Your task to perform on an android device: What's on the menu at Denny's? Image 0: 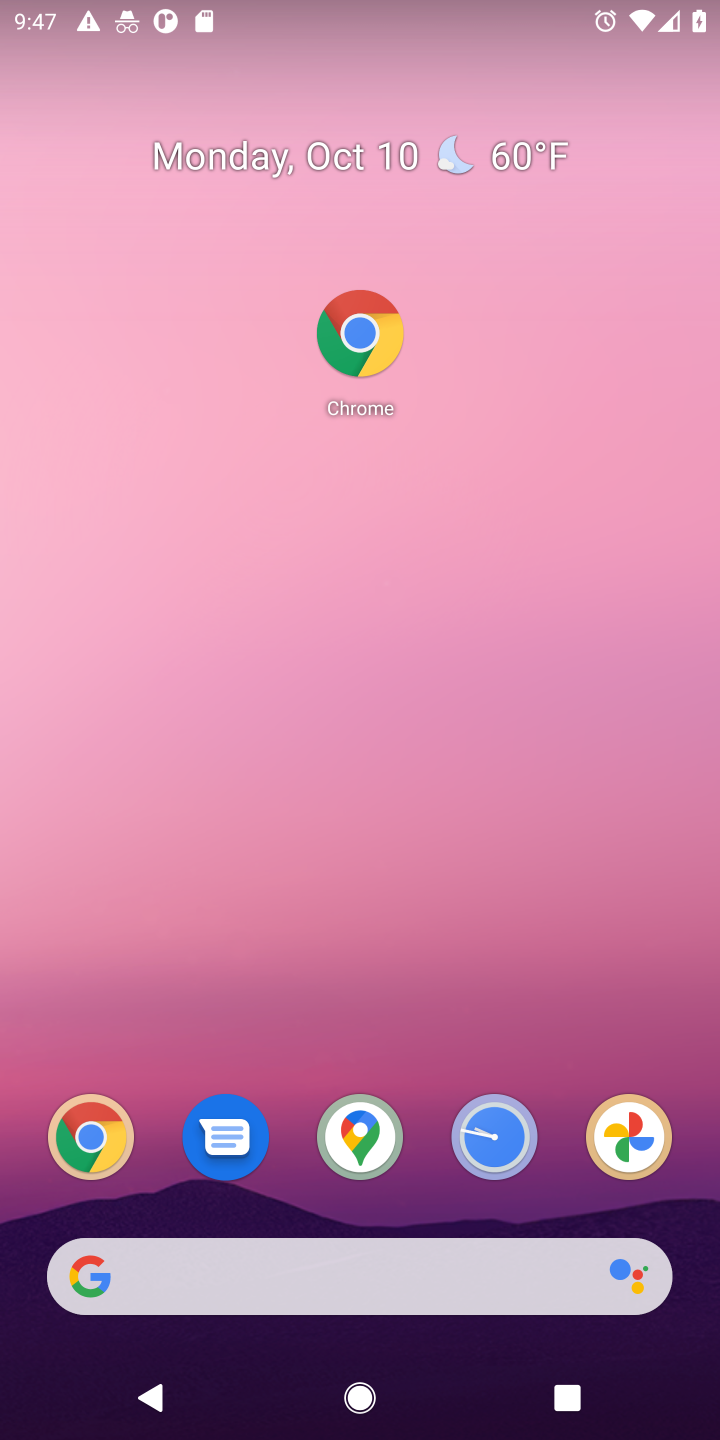
Step 0: click (352, 312)
Your task to perform on an android device: What's on the menu at Denny's? Image 1: 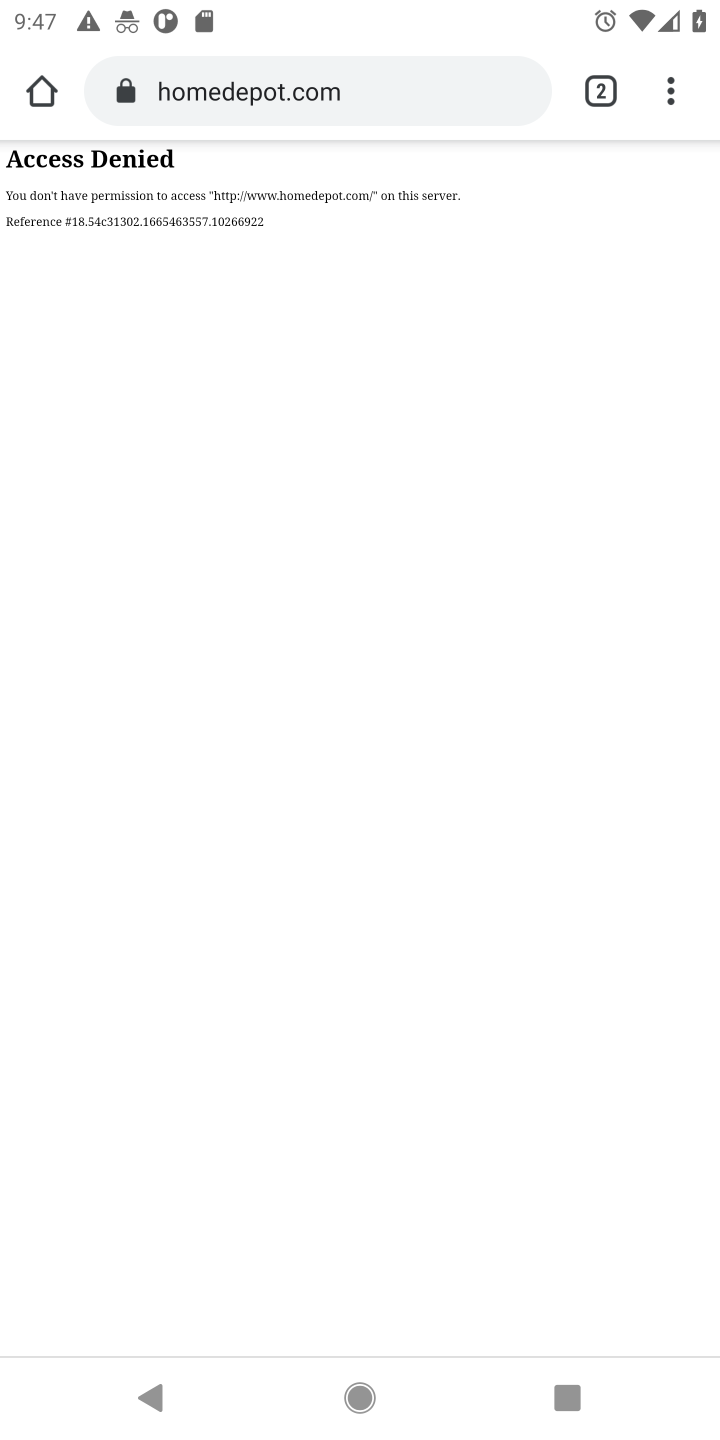
Step 1: click (349, 66)
Your task to perform on an android device: What's on the menu at Denny's? Image 2: 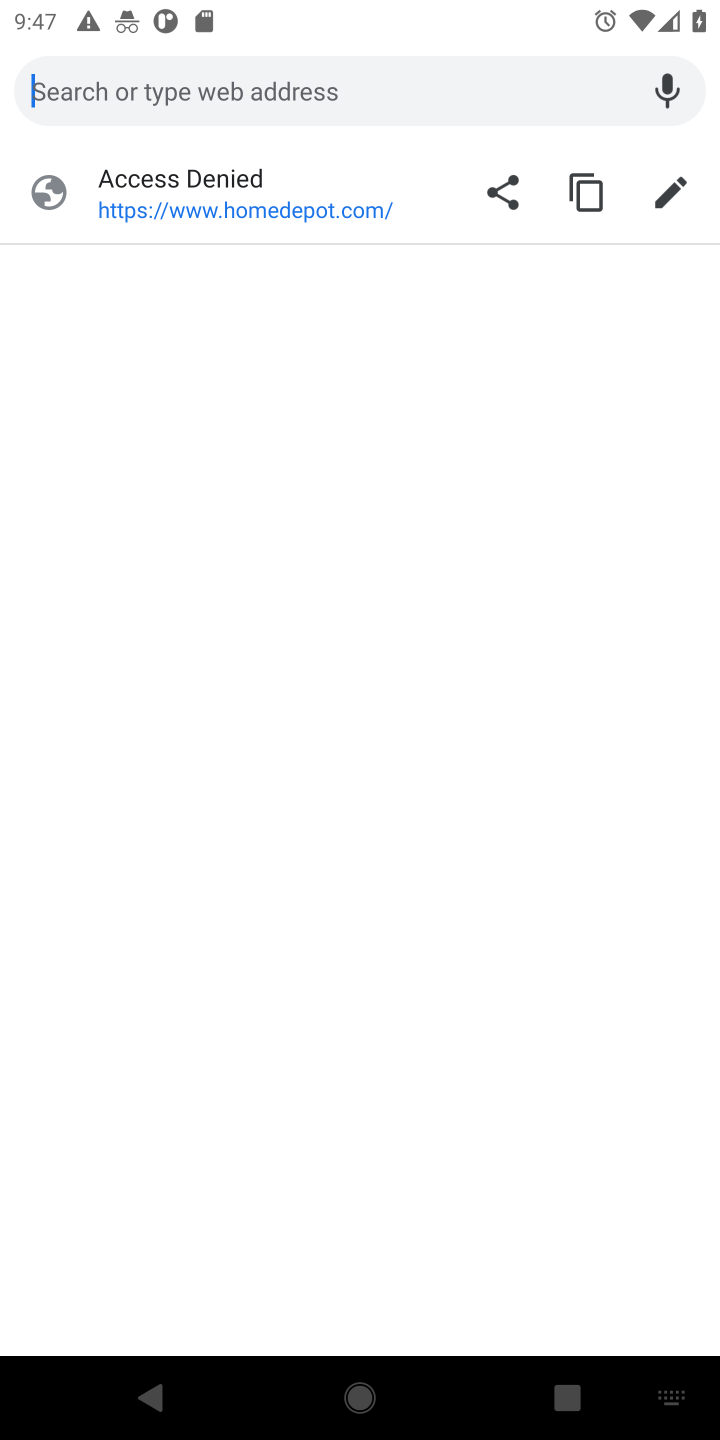
Step 2: type "menu at Denny's?"
Your task to perform on an android device: What's on the menu at Denny's? Image 3: 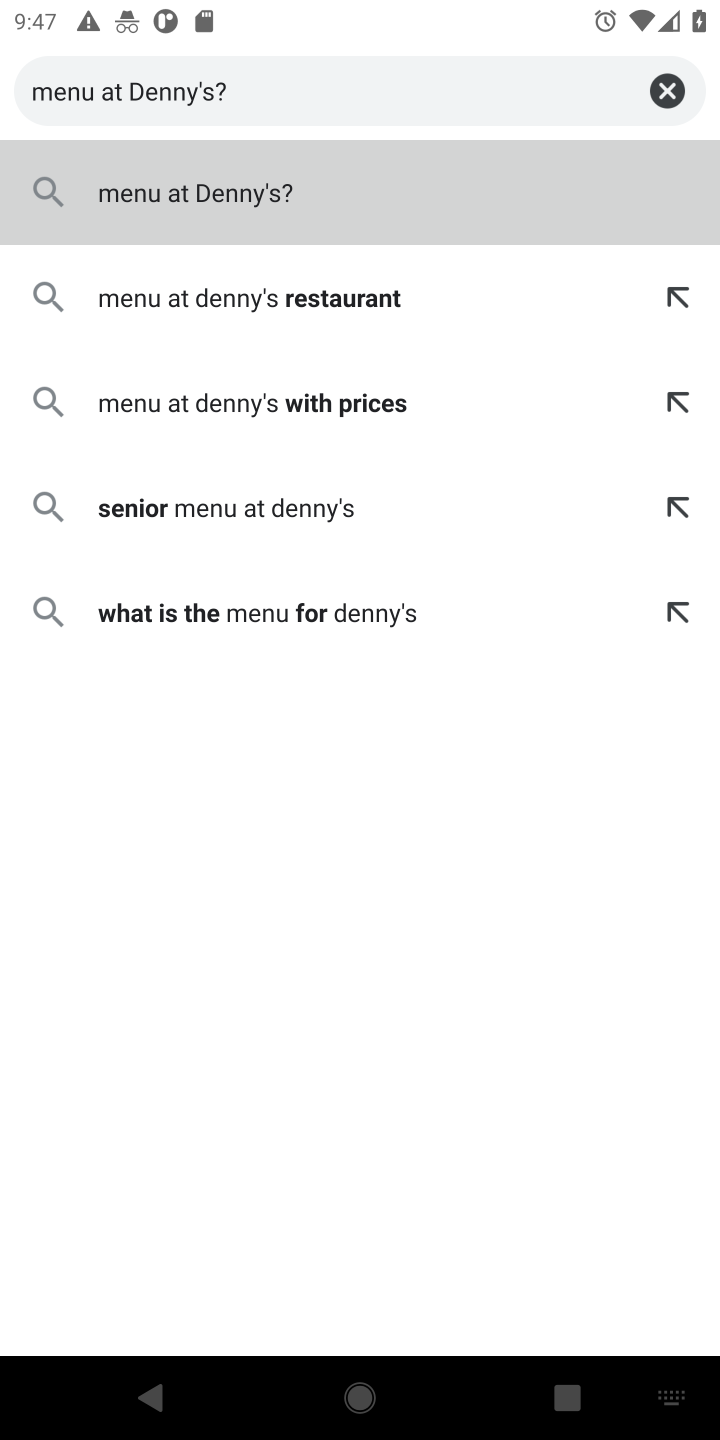
Step 3: click (185, 187)
Your task to perform on an android device: What's on the menu at Denny's? Image 4: 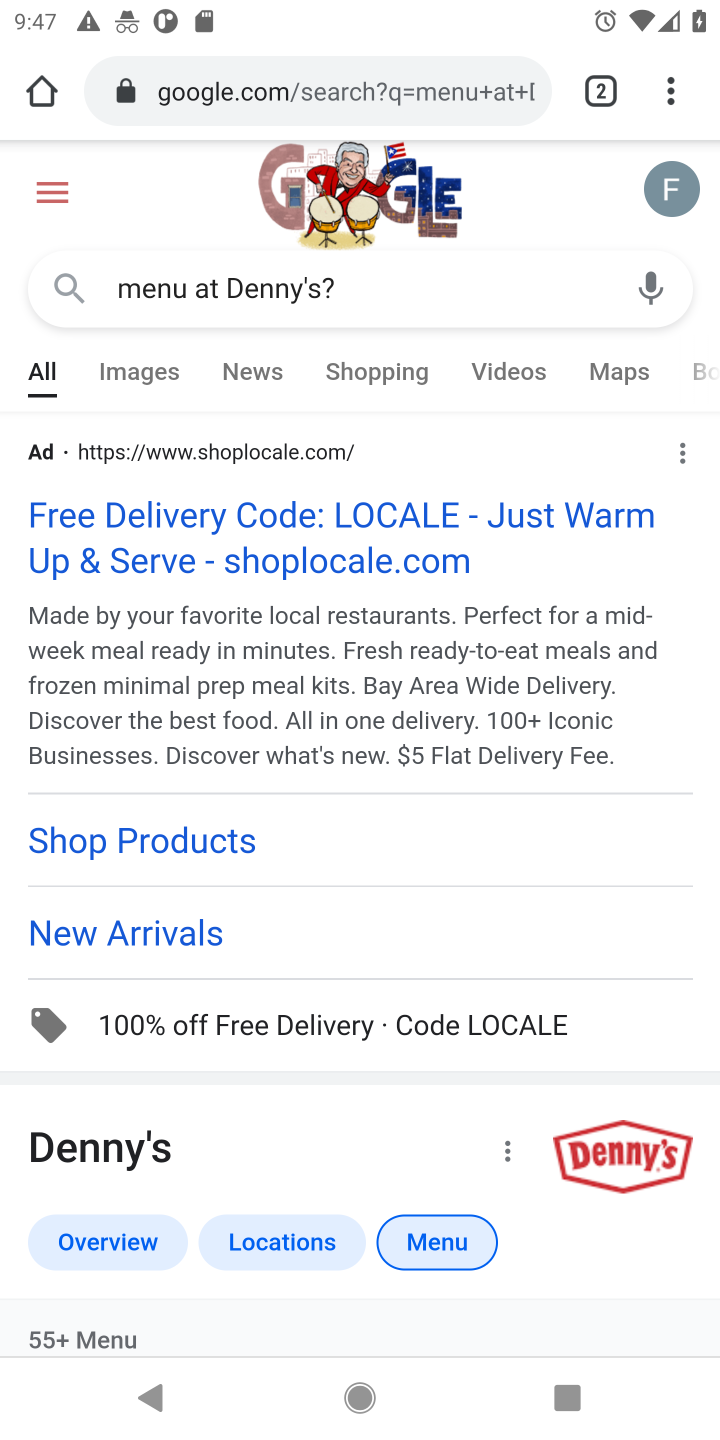
Step 4: drag from (296, 978) to (303, 231)
Your task to perform on an android device: What's on the menu at Denny's? Image 5: 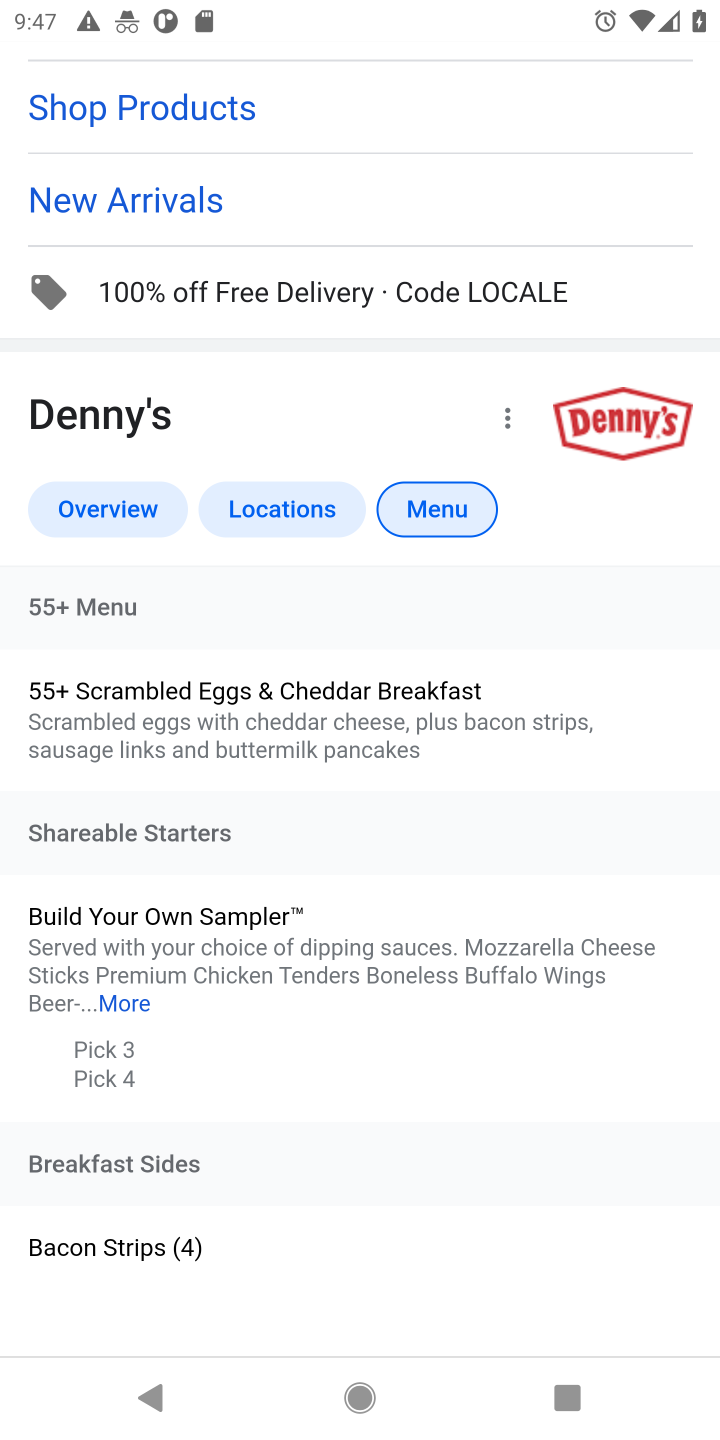
Step 5: drag from (323, 1091) to (381, 739)
Your task to perform on an android device: What's on the menu at Denny's? Image 6: 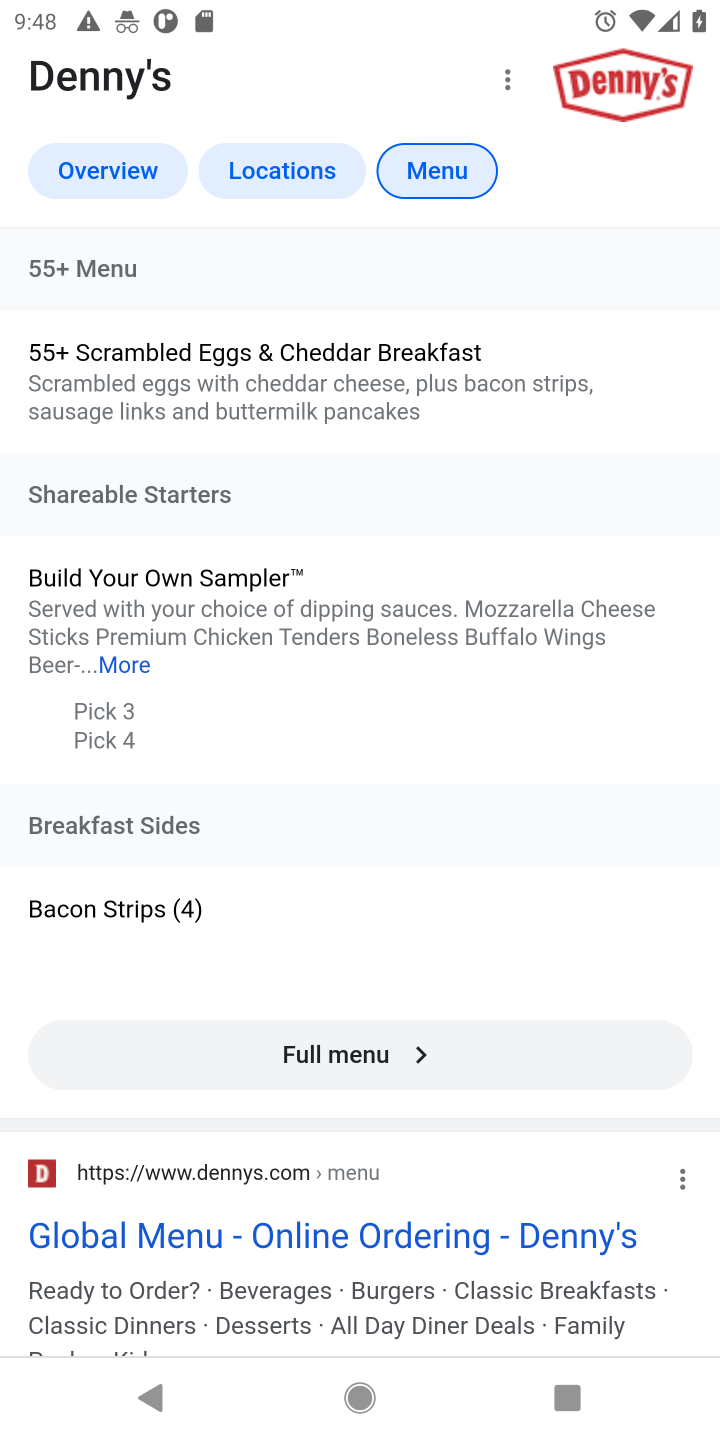
Step 6: drag from (273, 1249) to (247, 372)
Your task to perform on an android device: What's on the menu at Denny's? Image 7: 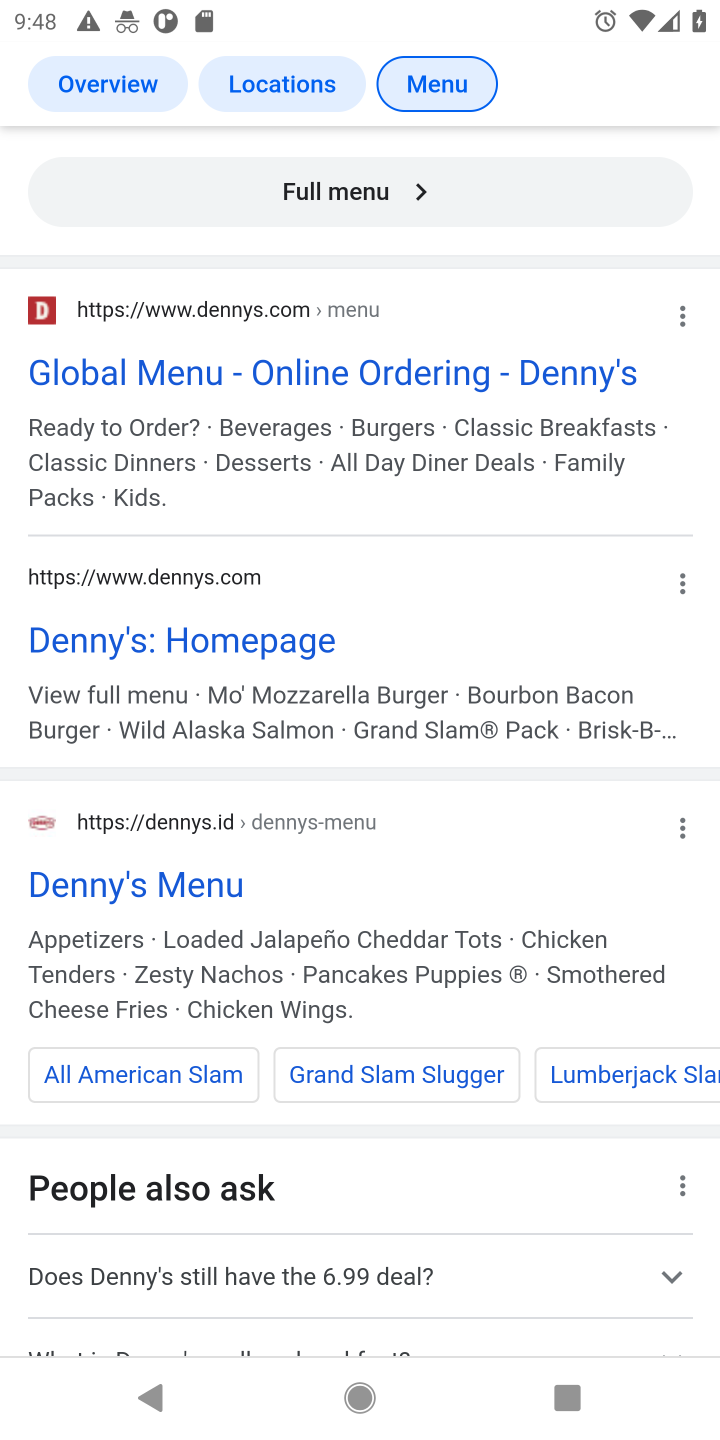
Step 7: click (92, 911)
Your task to perform on an android device: What's on the menu at Denny's? Image 8: 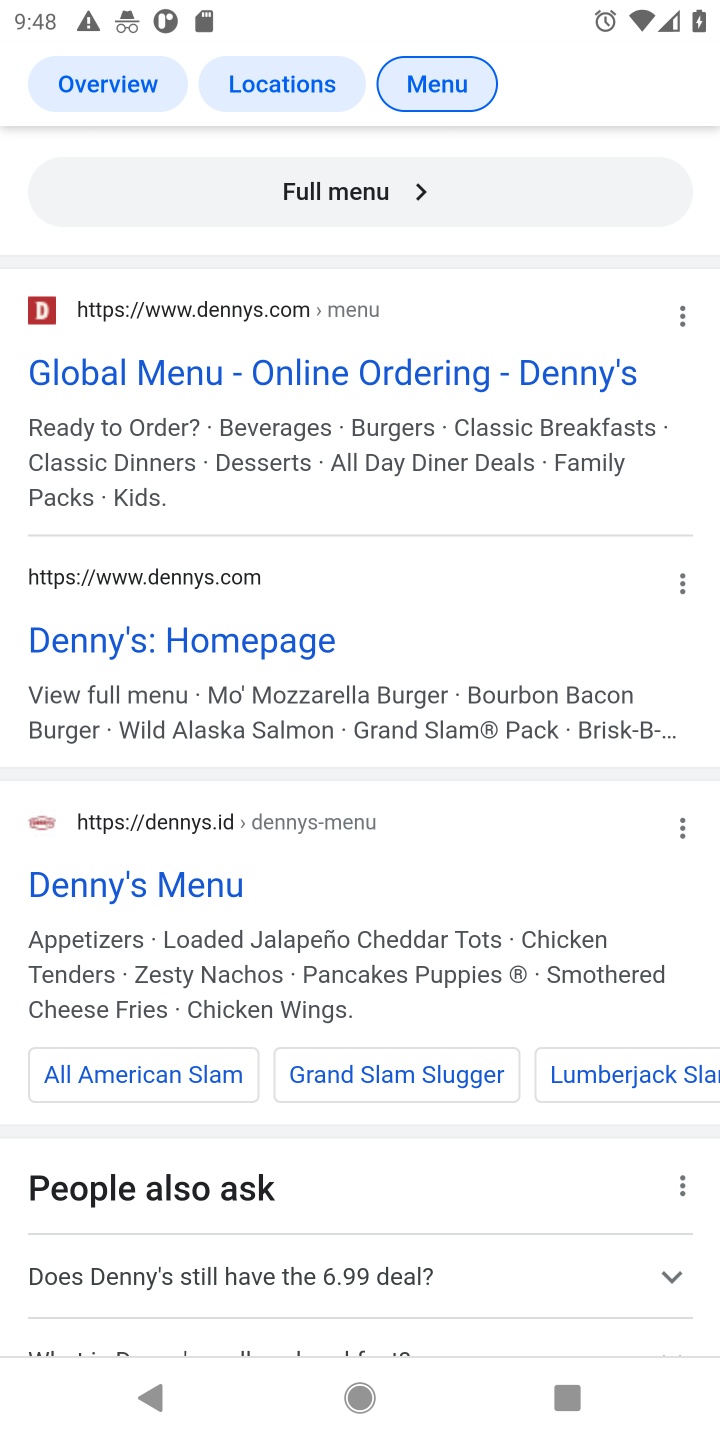
Step 8: click (90, 879)
Your task to perform on an android device: What's on the menu at Denny's? Image 9: 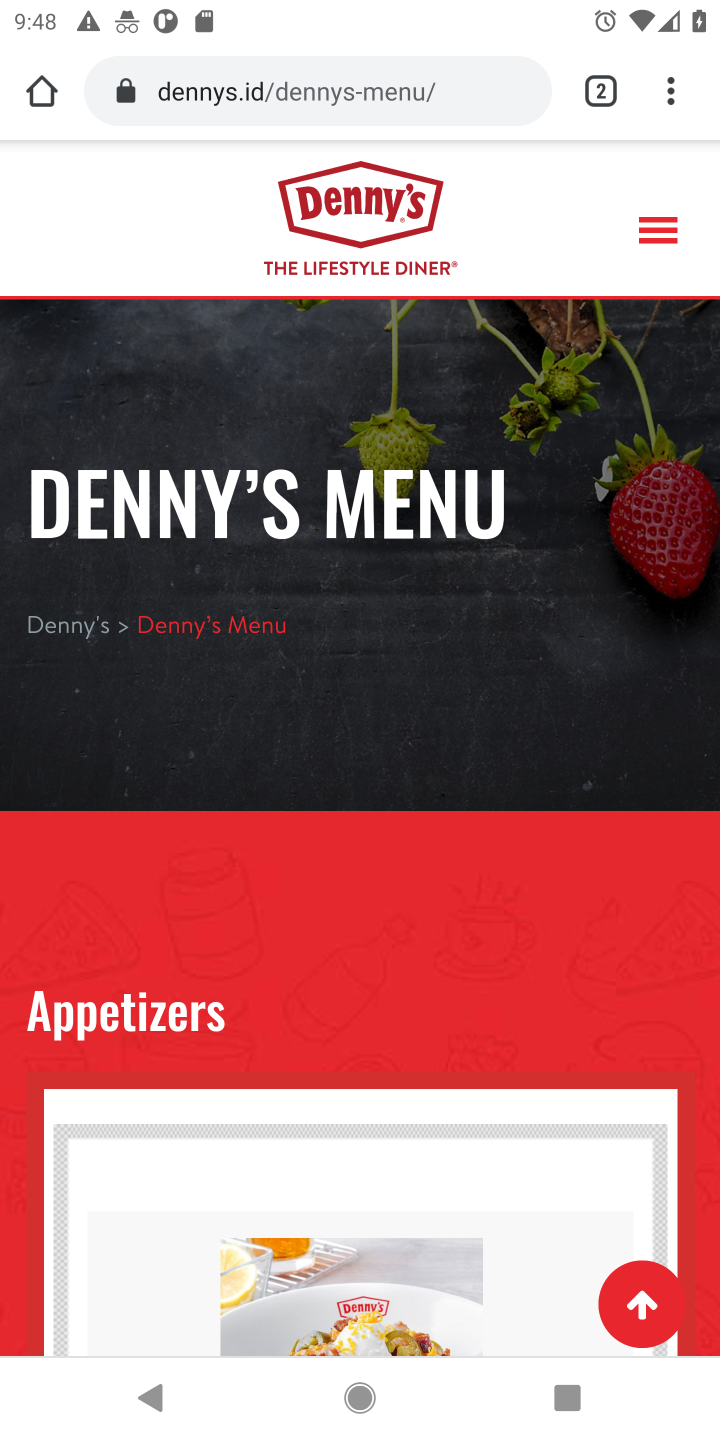
Step 9: task complete